Your task to perform on an android device: Open eBay Image 0: 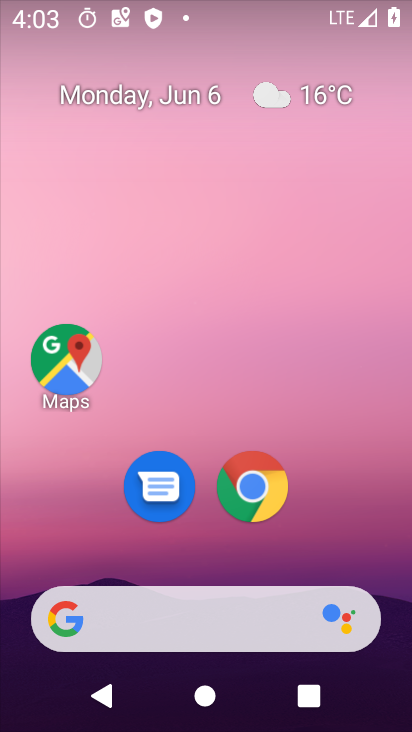
Step 0: click (251, 488)
Your task to perform on an android device: Open eBay Image 1: 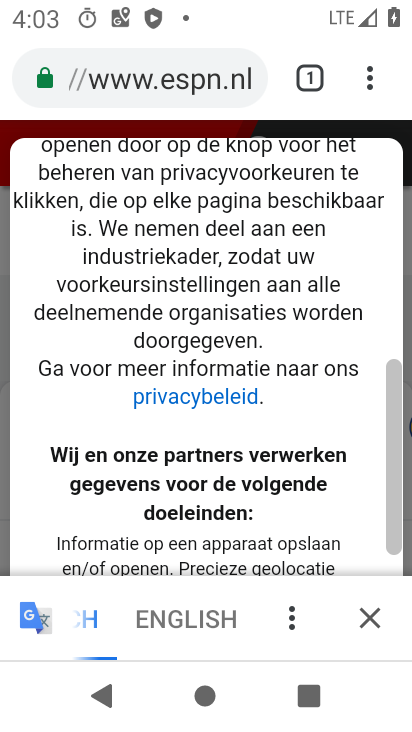
Step 1: drag from (372, 79) to (60, 61)
Your task to perform on an android device: Open eBay Image 2: 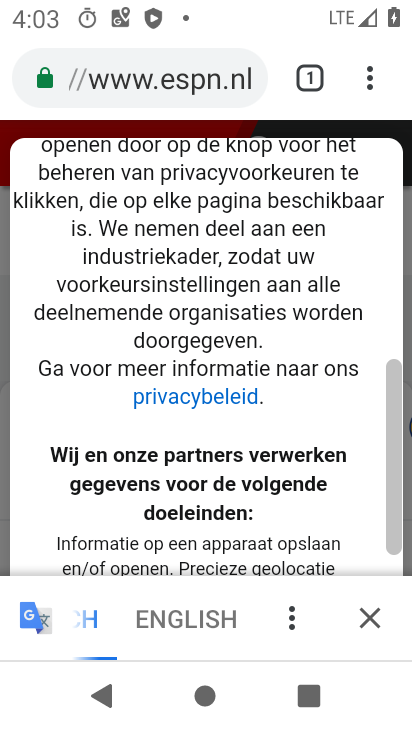
Step 2: click (113, 76)
Your task to perform on an android device: Open eBay Image 3: 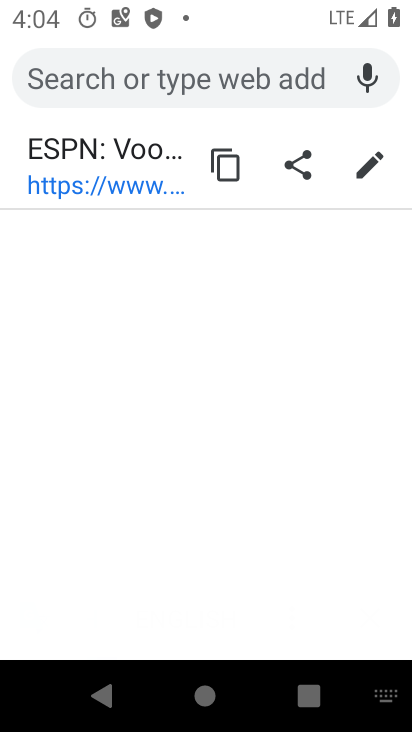
Step 3: type "ebay"
Your task to perform on an android device: Open eBay Image 4: 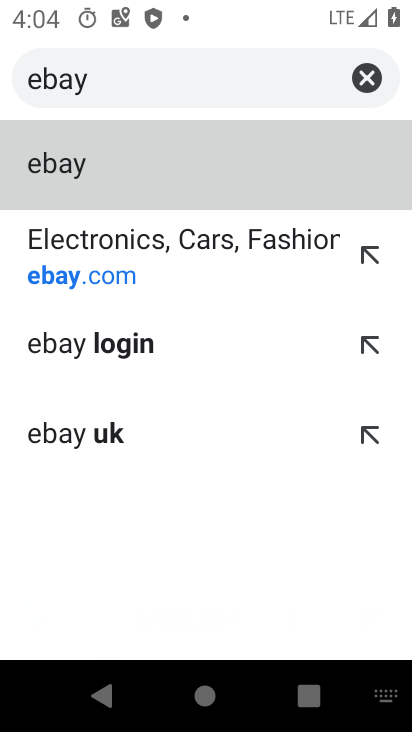
Step 4: click (68, 275)
Your task to perform on an android device: Open eBay Image 5: 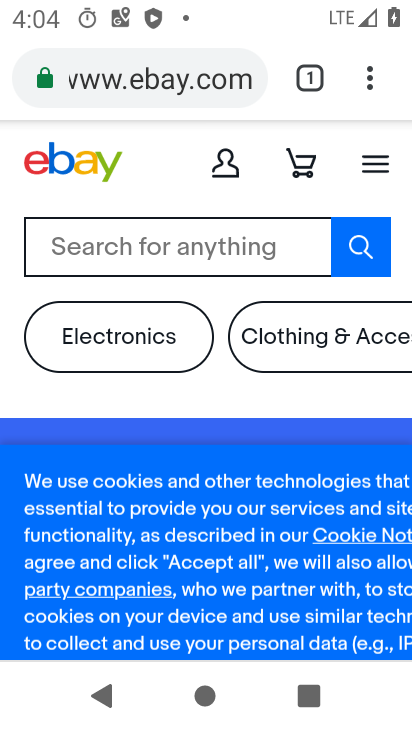
Step 5: task complete